Your task to perform on an android device: Open sound settings Image 0: 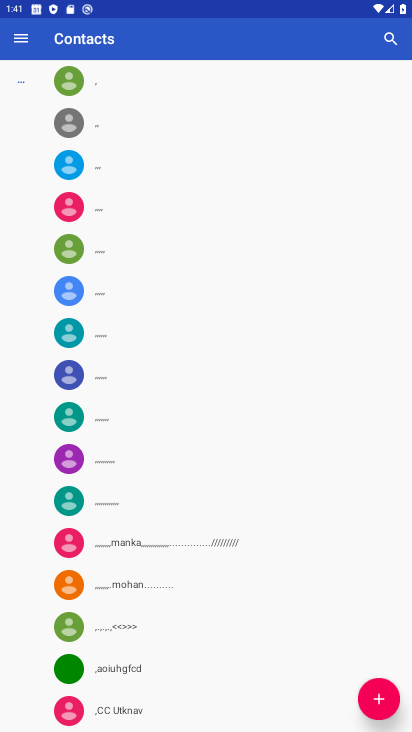
Step 0: press back button
Your task to perform on an android device: Open sound settings Image 1: 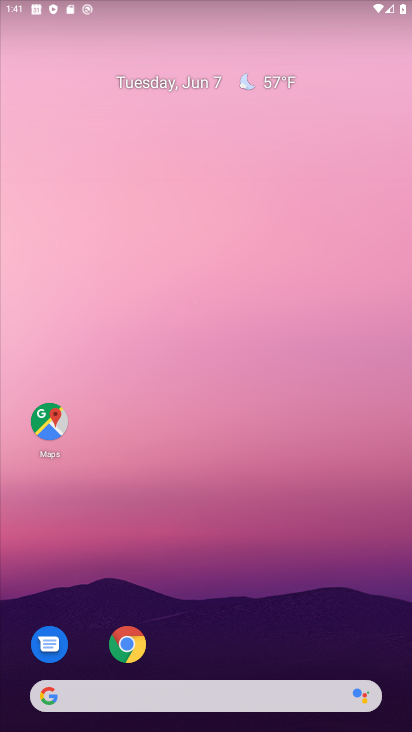
Step 1: drag from (274, 700) to (118, 80)
Your task to perform on an android device: Open sound settings Image 2: 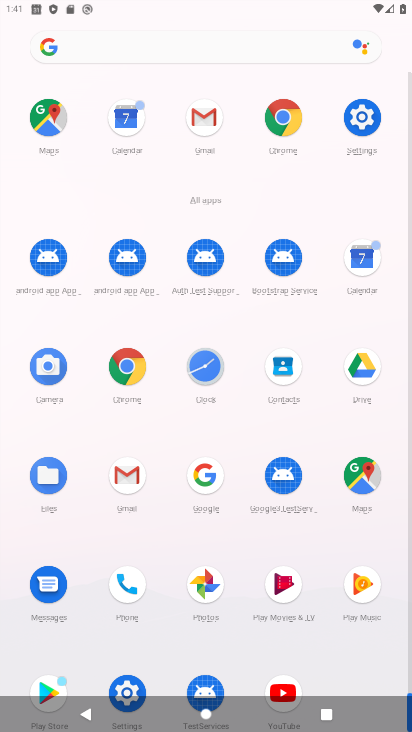
Step 2: click (361, 126)
Your task to perform on an android device: Open sound settings Image 3: 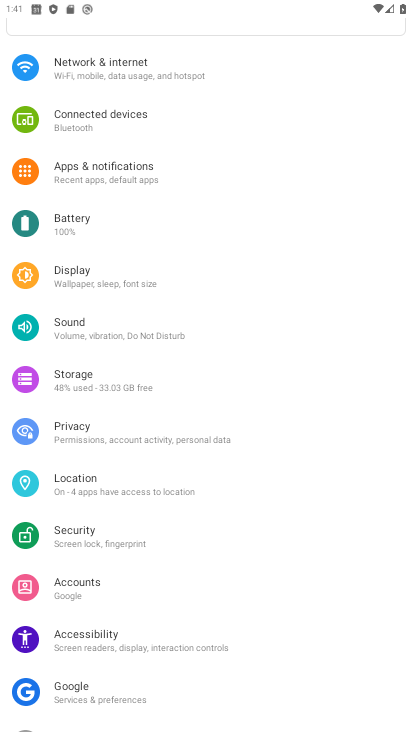
Step 3: click (65, 335)
Your task to perform on an android device: Open sound settings Image 4: 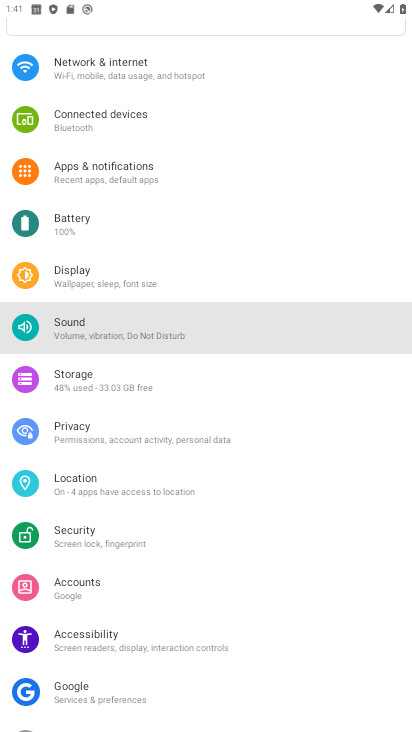
Step 4: click (65, 330)
Your task to perform on an android device: Open sound settings Image 5: 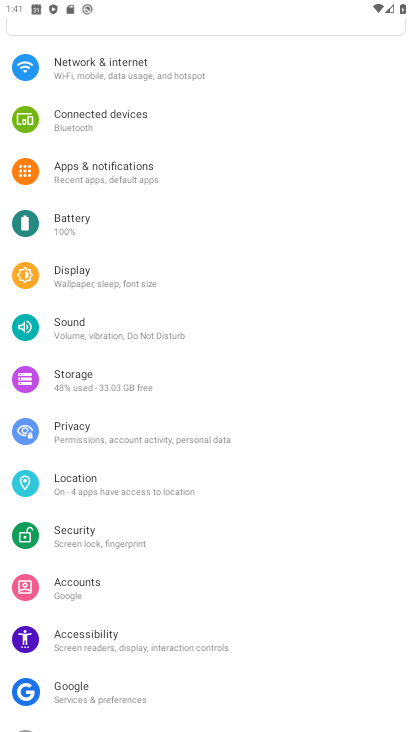
Step 5: click (65, 330)
Your task to perform on an android device: Open sound settings Image 6: 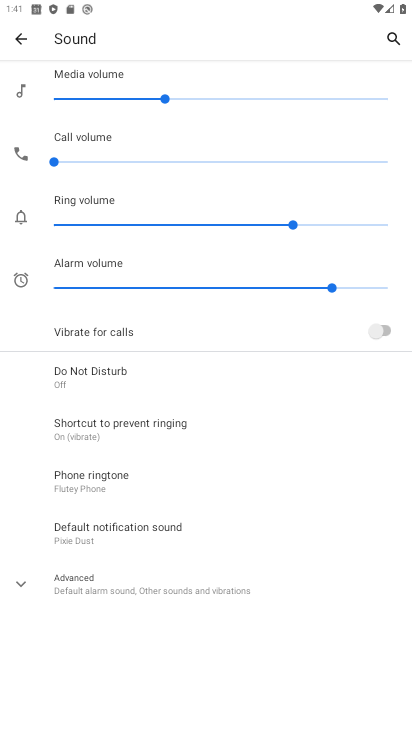
Step 6: task complete